Your task to perform on an android device: Turn off the flashlight Image 0: 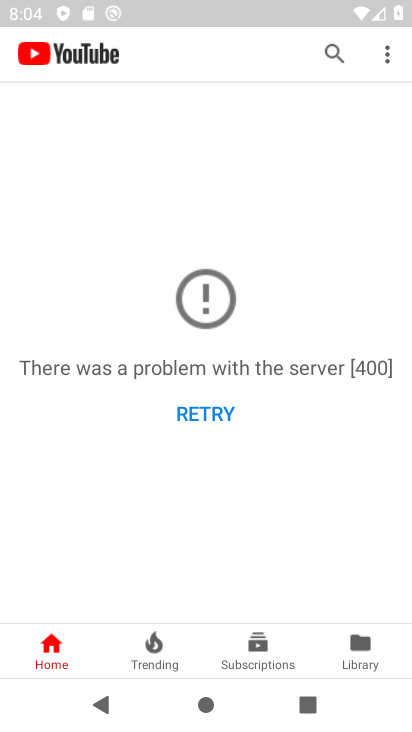
Step 0: press home button
Your task to perform on an android device: Turn off the flashlight Image 1: 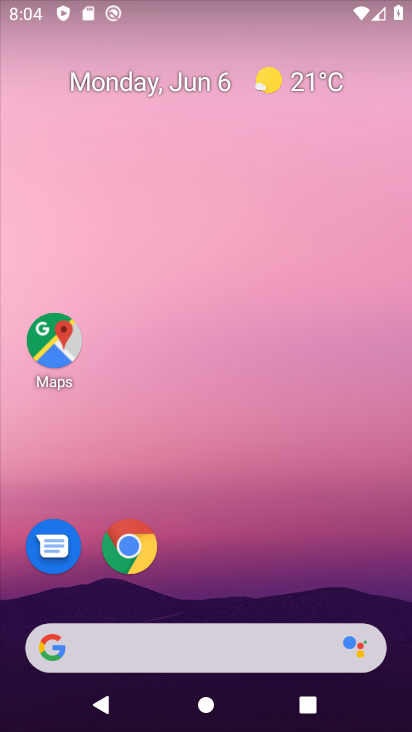
Step 1: drag from (318, 424) to (348, 54)
Your task to perform on an android device: Turn off the flashlight Image 2: 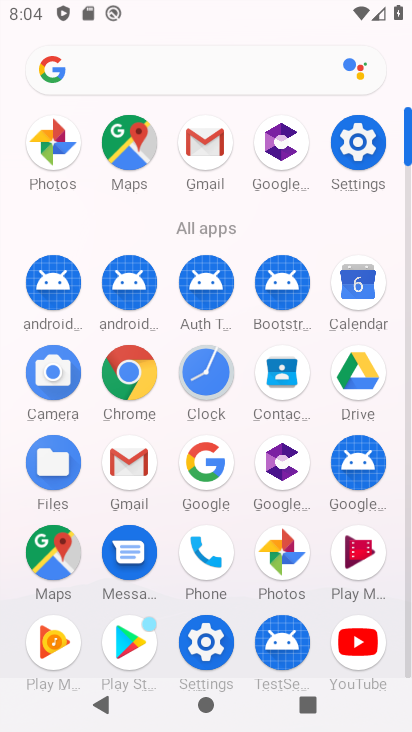
Step 2: click (380, 136)
Your task to perform on an android device: Turn off the flashlight Image 3: 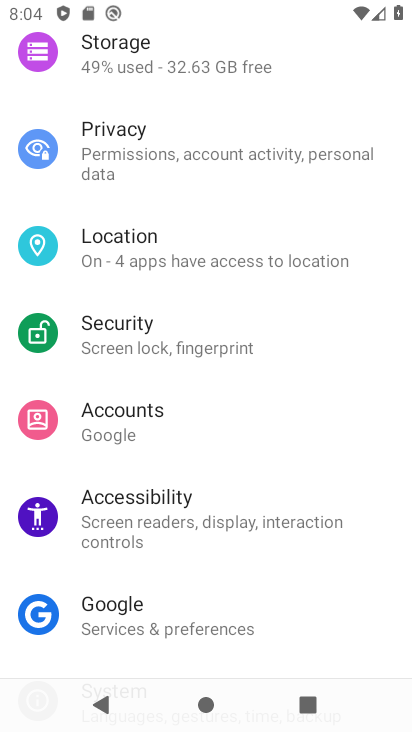
Step 3: task complete